Your task to perform on an android device: turn off data saver in the chrome app Image 0: 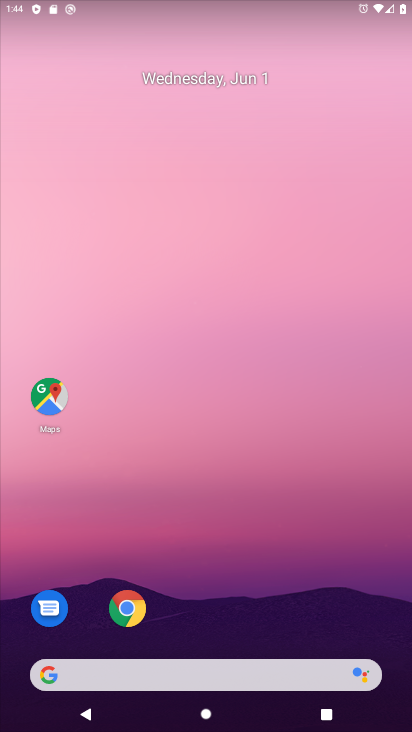
Step 0: click (124, 617)
Your task to perform on an android device: turn off data saver in the chrome app Image 1: 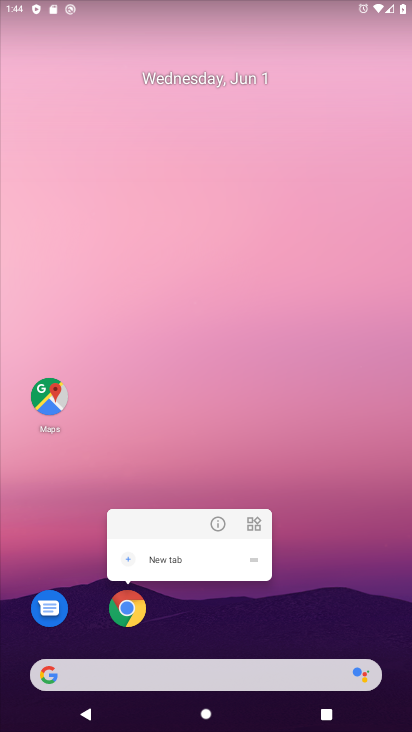
Step 1: click (124, 610)
Your task to perform on an android device: turn off data saver in the chrome app Image 2: 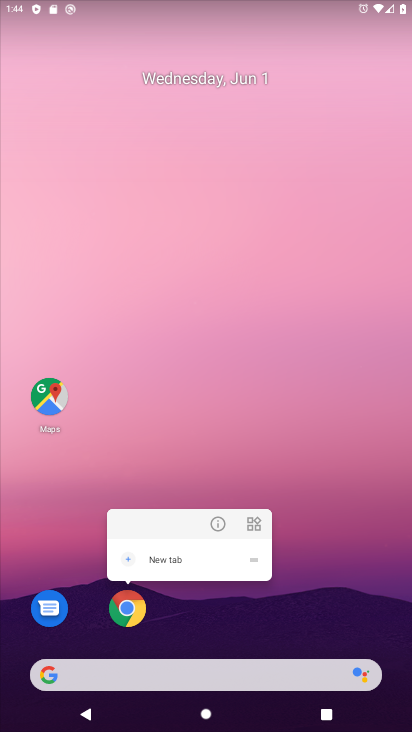
Step 2: click (133, 611)
Your task to perform on an android device: turn off data saver in the chrome app Image 3: 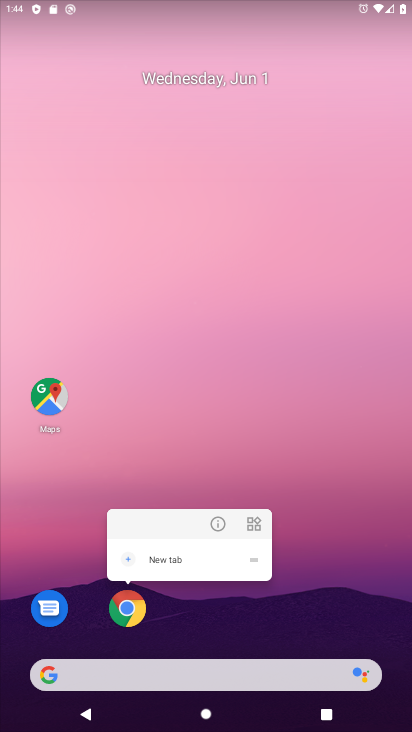
Step 3: click (133, 615)
Your task to perform on an android device: turn off data saver in the chrome app Image 4: 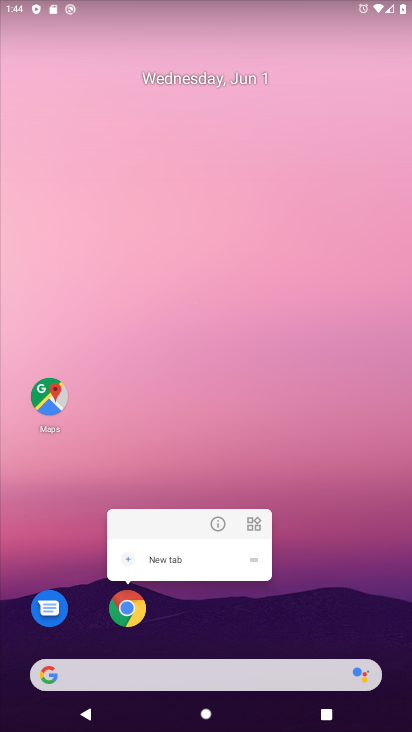
Step 4: click (129, 615)
Your task to perform on an android device: turn off data saver in the chrome app Image 5: 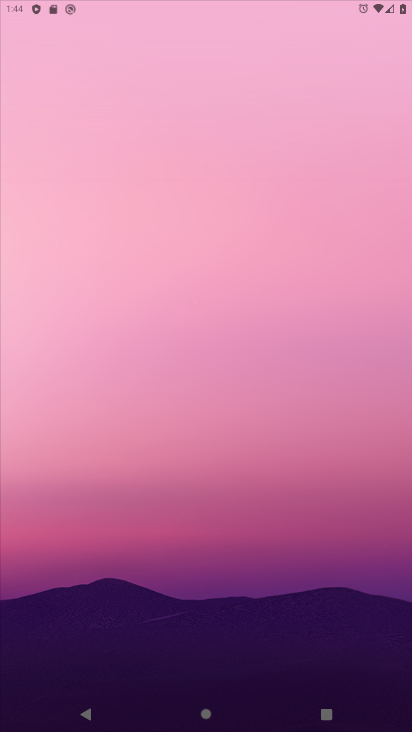
Step 5: click (128, 613)
Your task to perform on an android device: turn off data saver in the chrome app Image 6: 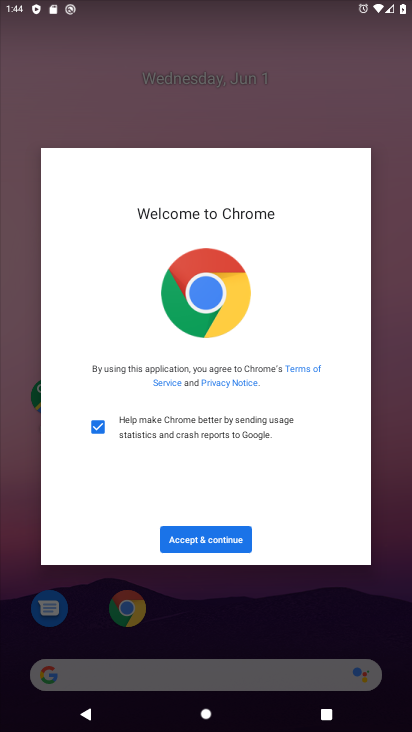
Step 6: click (176, 536)
Your task to perform on an android device: turn off data saver in the chrome app Image 7: 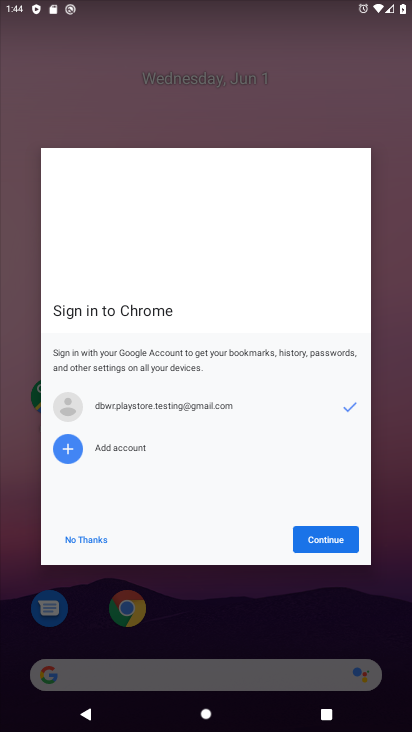
Step 7: click (316, 542)
Your task to perform on an android device: turn off data saver in the chrome app Image 8: 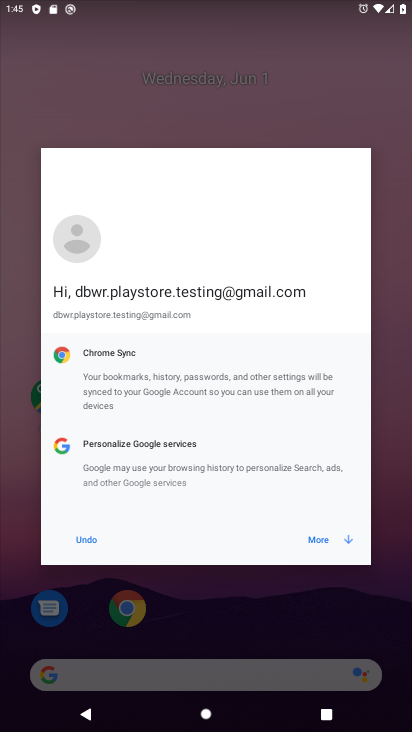
Step 8: click (316, 542)
Your task to perform on an android device: turn off data saver in the chrome app Image 9: 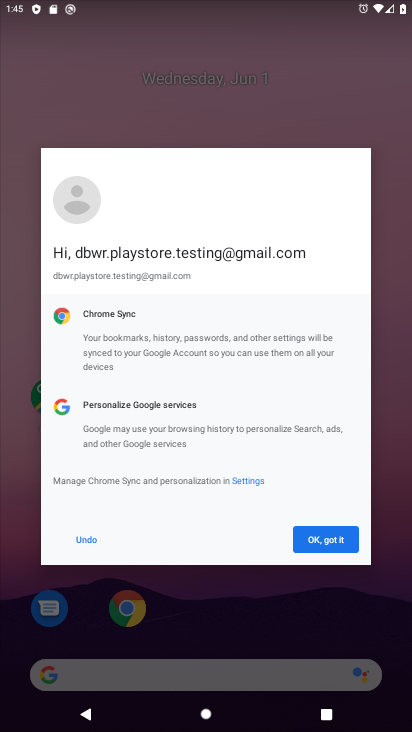
Step 9: click (316, 542)
Your task to perform on an android device: turn off data saver in the chrome app Image 10: 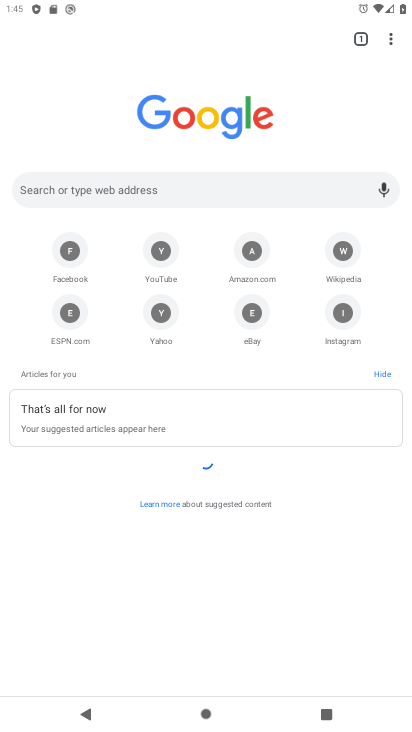
Step 10: drag from (393, 37) to (325, 338)
Your task to perform on an android device: turn off data saver in the chrome app Image 11: 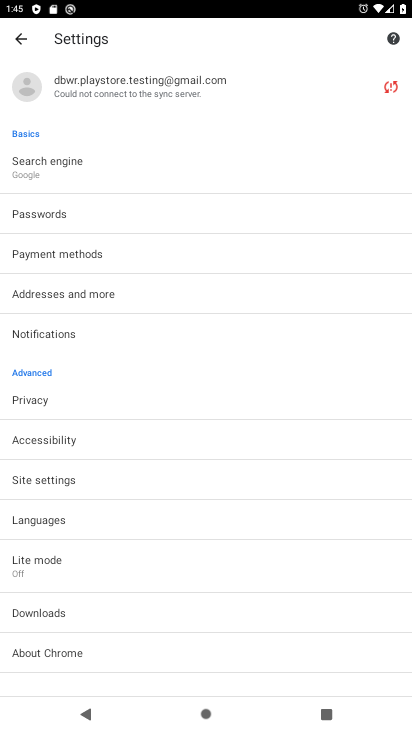
Step 11: drag from (141, 599) to (217, 256)
Your task to perform on an android device: turn off data saver in the chrome app Image 12: 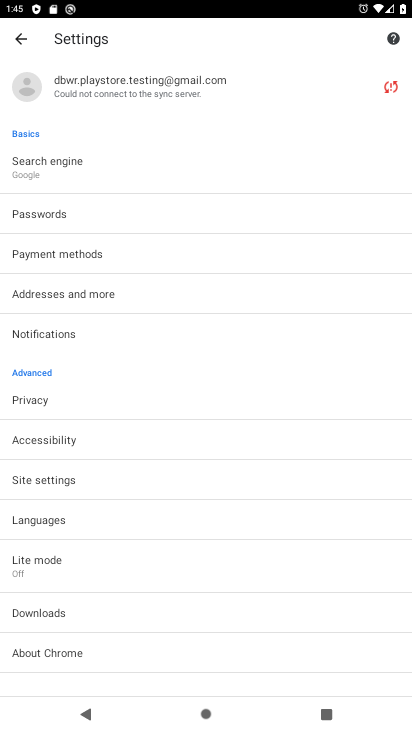
Step 12: click (98, 574)
Your task to perform on an android device: turn off data saver in the chrome app Image 13: 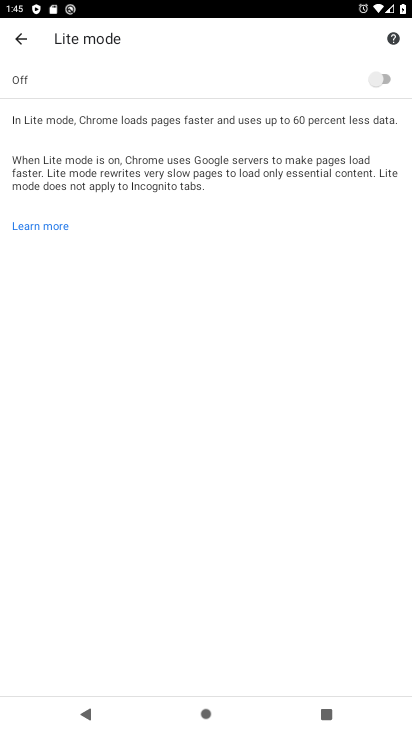
Step 13: task complete